Your task to perform on an android device: turn off notifications in google photos Image 0: 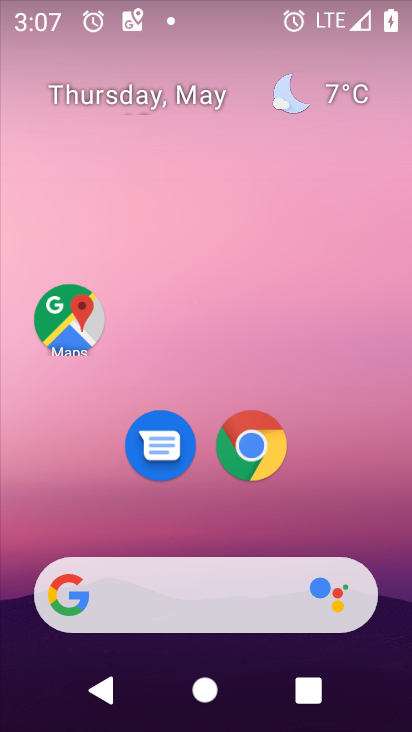
Step 0: drag from (368, 523) to (377, 18)
Your task to perform on an android device: turn off notifications in google photos Image 1: 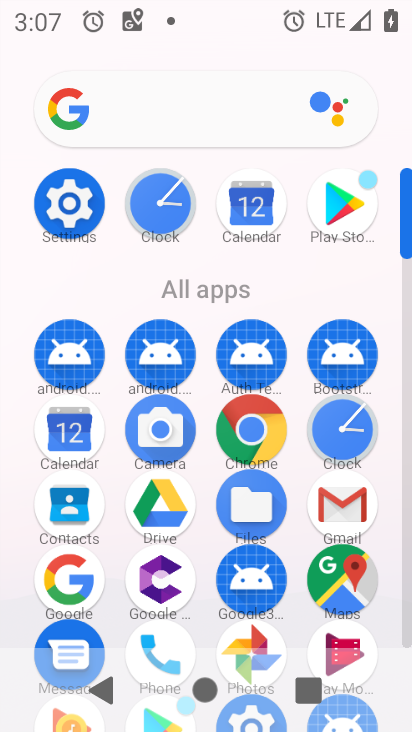
Step 1: click (407, 438)
Your task to perform on an android device: turn off notifications in google photos Image 2: 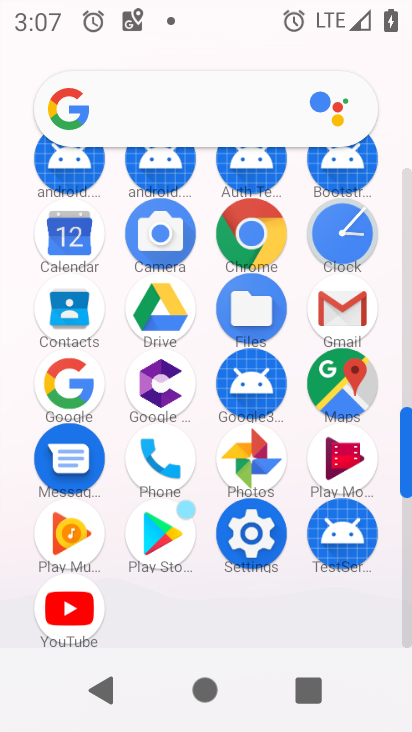
Step 2: click (253, 461)
Your task to perform on an android device: turn off notifications in google photos Image 3: 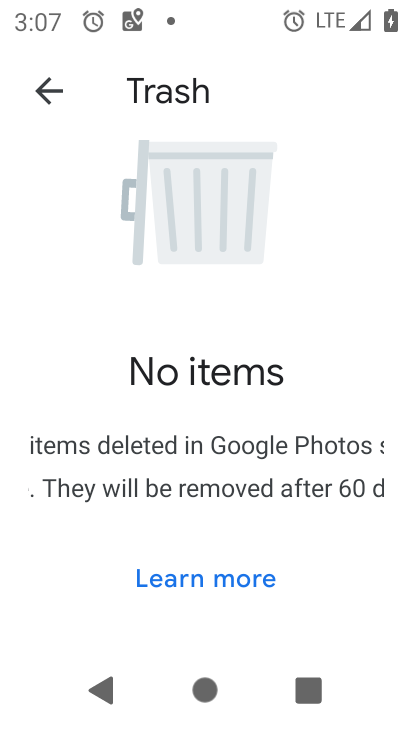
Step 3: click (45, 96)
Your task to perform on an android device: turn off notifications in google photos Image 4: 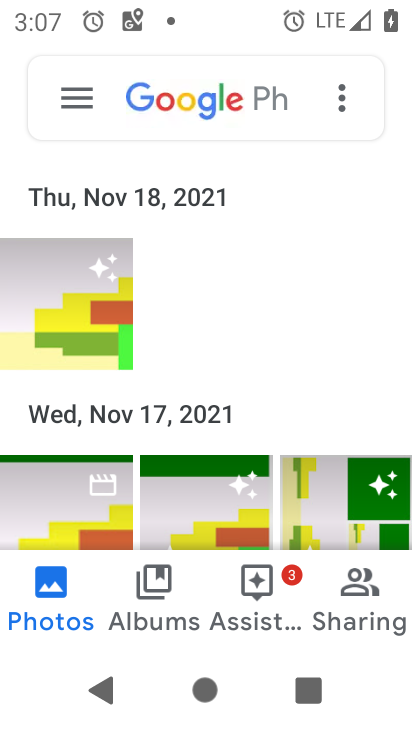
Step 4: click (73, 106)
Your task to perform on an android device: turn off notifications in google photos Image 5: 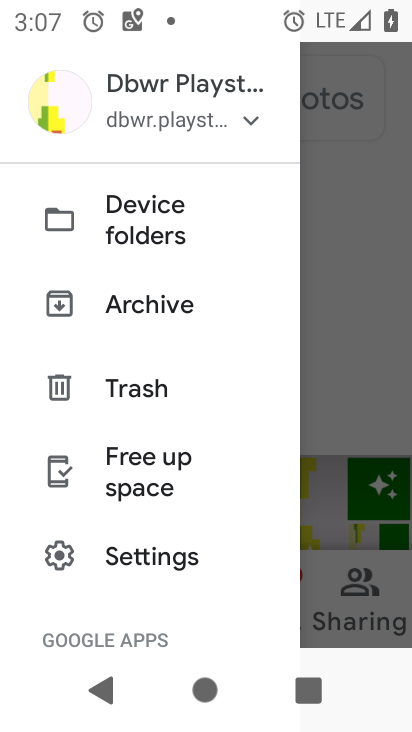
Step 5: click (156, 559)
Your task to perform on an android device: turn off notifications in google photos Image 6: 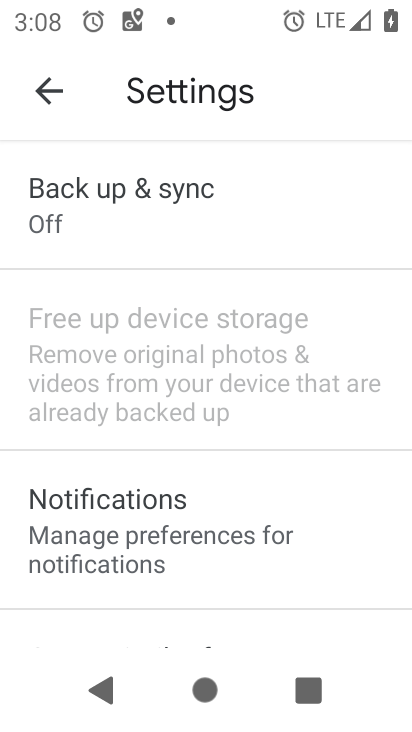
Step 6: click (84, 530)
Your task to perform on an android device: turn off notifications in google photos Image 7: 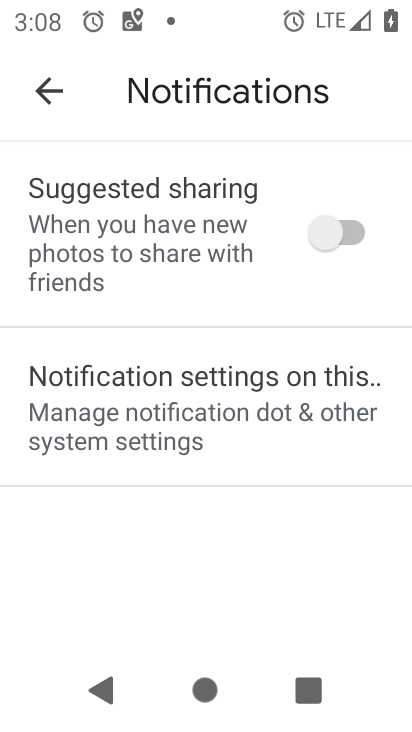
Step 7: click (252, 419)
Your task to perform on an android device: turn off notifications in google photos Image 8: 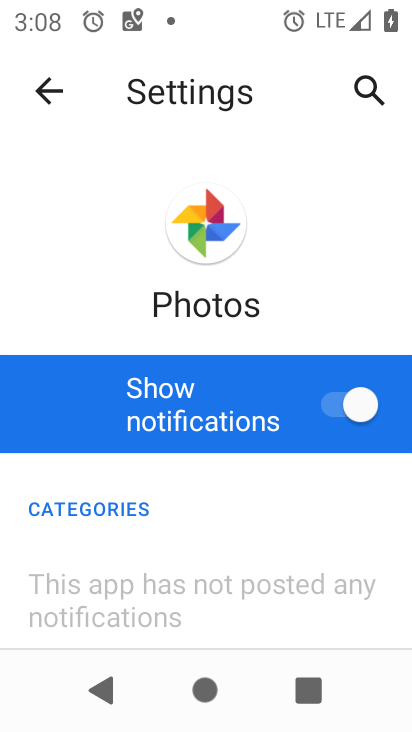
Step 8: click (355, 402)
Your task to perform on an android device: turn off notifications in google photos Image 9: 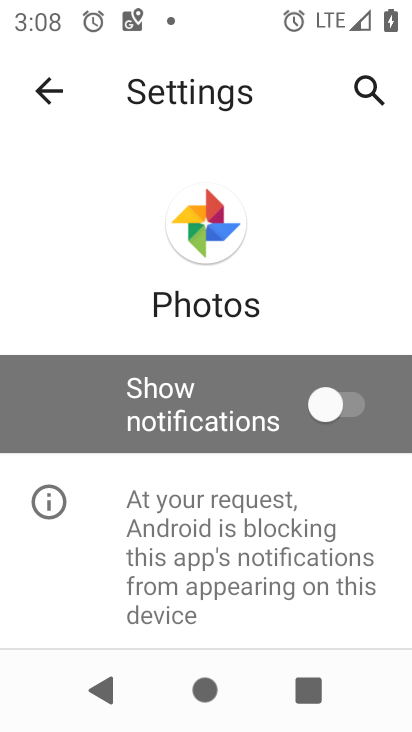
Step 9: task complete